Your task to perform on an android device: When is my next appointment? Image 0: 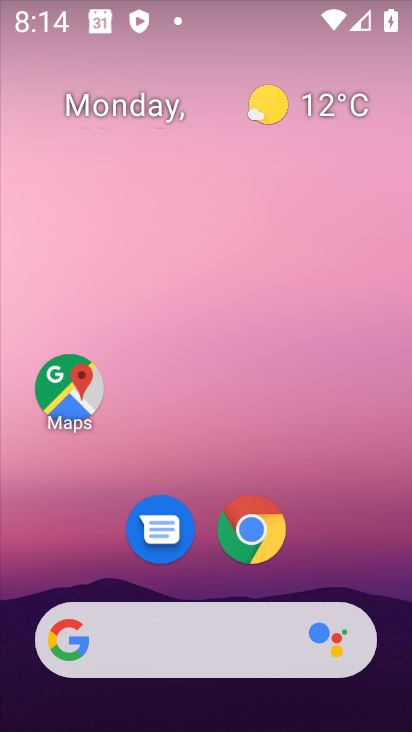
Step 0: drag from (199, 630) to (210, 113)
Your task to perform on an android device: When is my next appointment? Image 1: 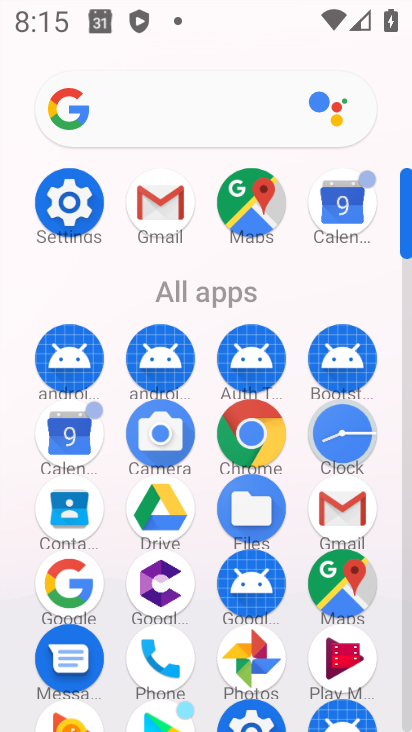
Step 1: click (78, 456)
Your task to perform on an android device: When is my next appointment? Image 2: 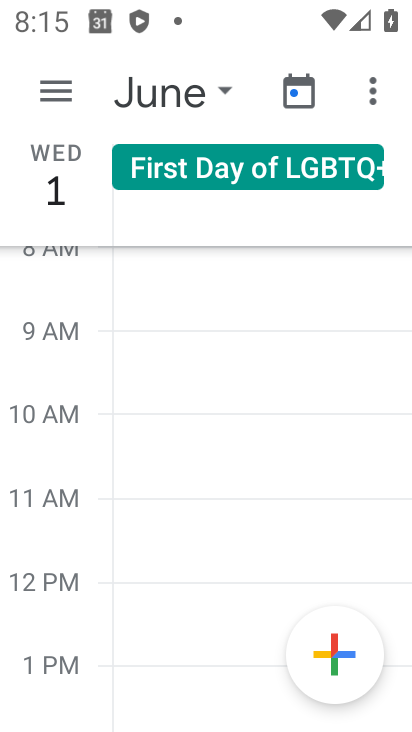
Step 2: click (66, 103)
Your task to perform on an android device: When is my next appointment? Image 3: 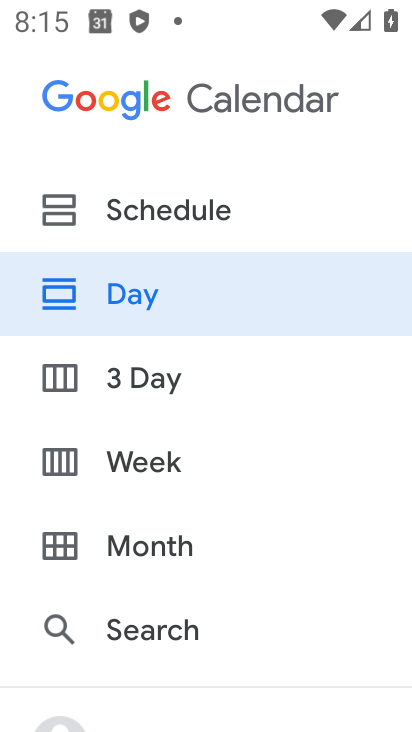
Step 3: click (175, 216)
Your task to perform on an android device: When is my next appointment? Image 4: 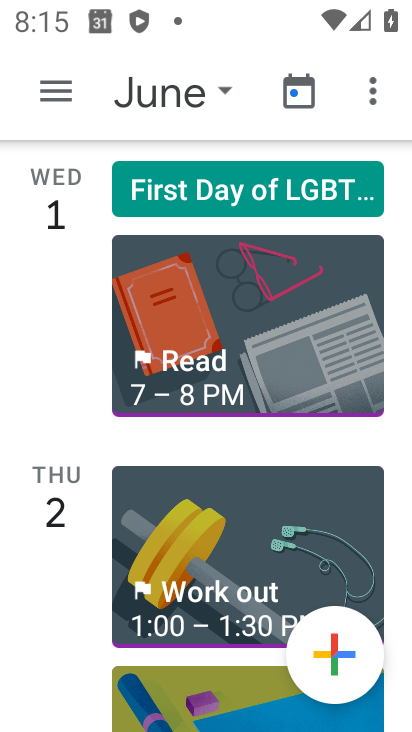
Step 4: click (150, 96)
Your task to perform on an android device: When is my next appointment? Image 5: 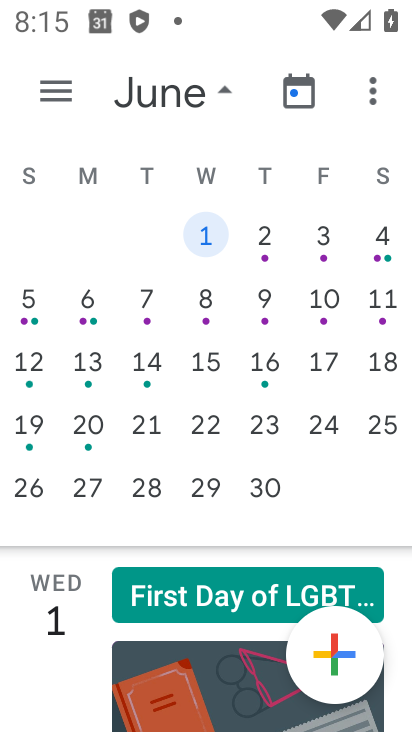
Step 5: drag from (51, 340) to (403, 386)
Your task to perform on an android device: When is my next appointment? Image 6: 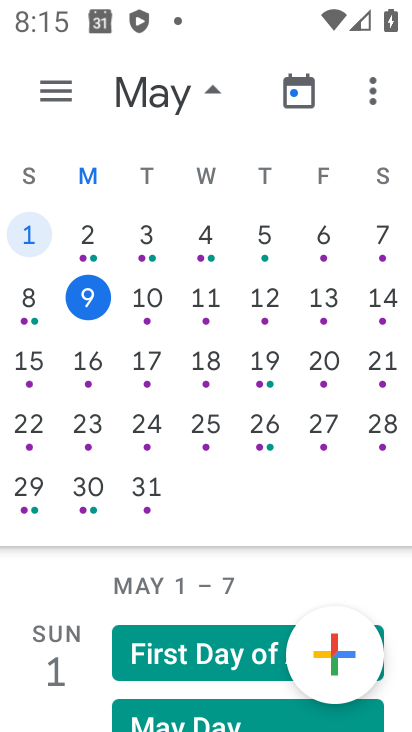
Step 6: click (204, 93)
Your task to perform on an android device: When is my next appointment? Image 7: 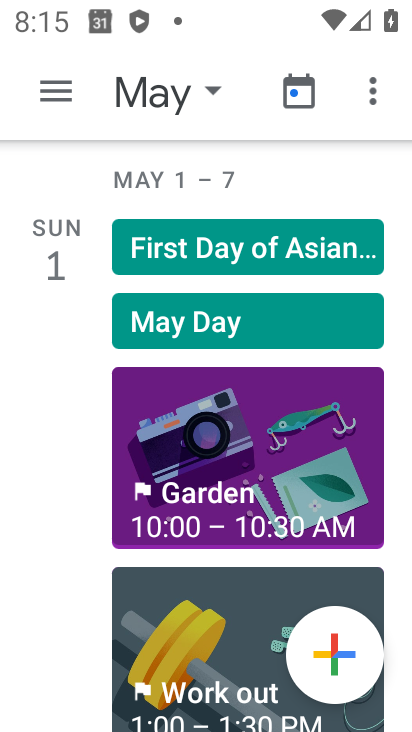
Step 7: drag from (215, 553) to (257, 153)
Your task to perform on an android device: When is my next appointment? Image 8: 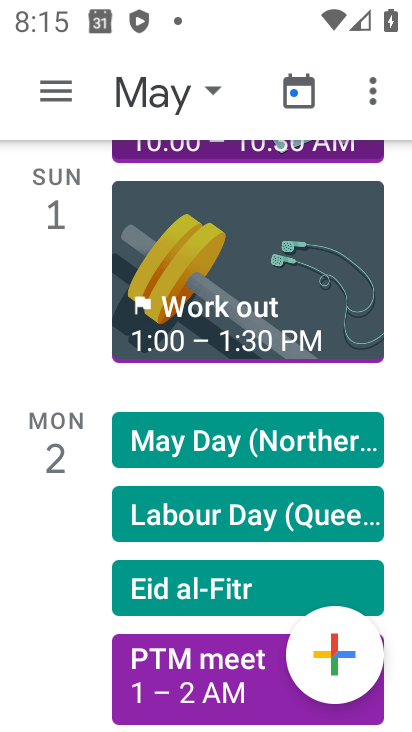
Step 8: drag from (177, 291) to (216, 712)
Your task to perform on an android device: When is my next appointment? Image 9: 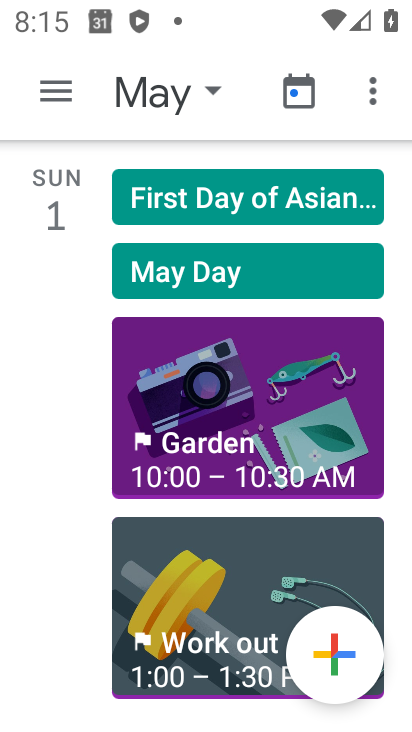
Step 9: click (185, 93)
Your task to perform on an android device: When is my next appointment? Image 10: 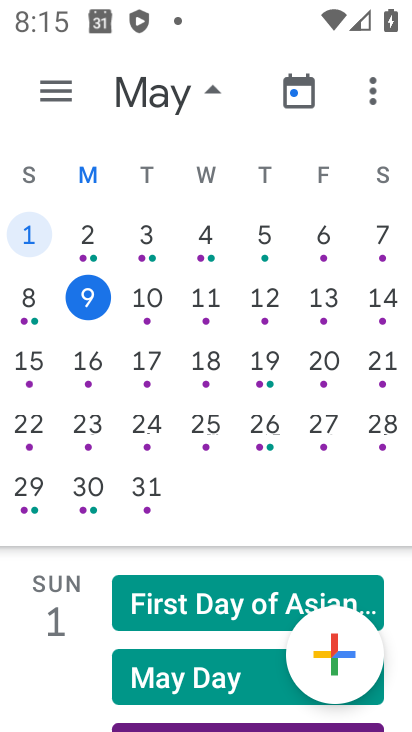
Step 10: click (91, 307)
Your task to perform on an android device: When is my next appointment? Image 11: 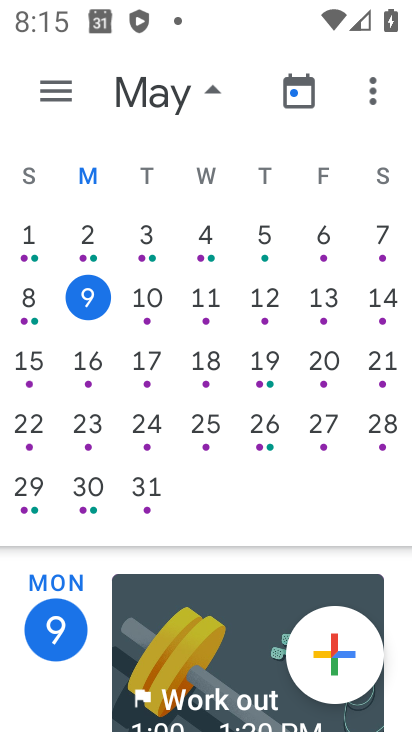
Step 11: click (211, 88)
Your task to perform on an android device: When is my next appointment? Image 12: 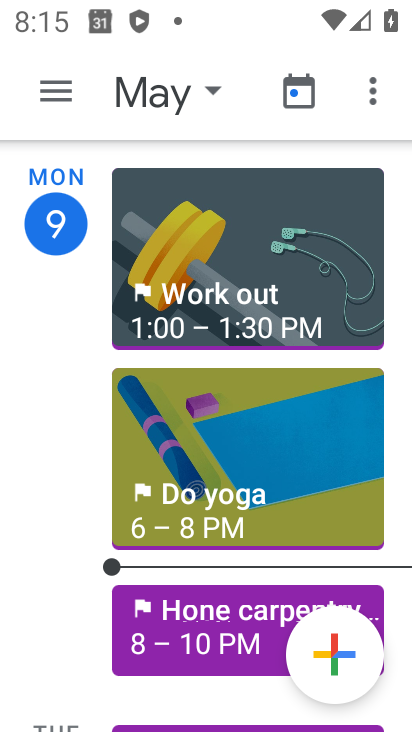
Step 12: task complete